Your task to perform on an android device: Go to location settings Image 0: 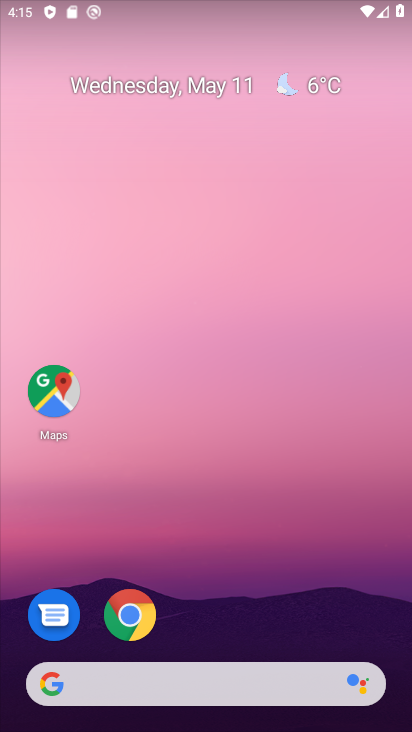
Step 0: drag from (297, 581) to (257, 156)
Your task to perform on an android device: Go to location settings Image 1: 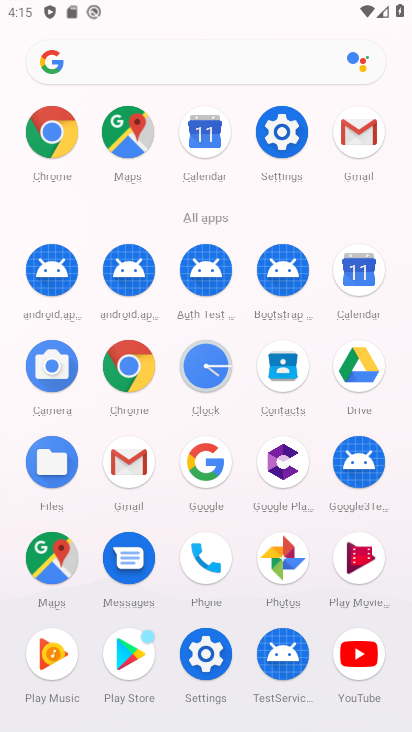
Step 1: click (203, 655)
Your task to perform on an android device: Go to location settings Image 2: 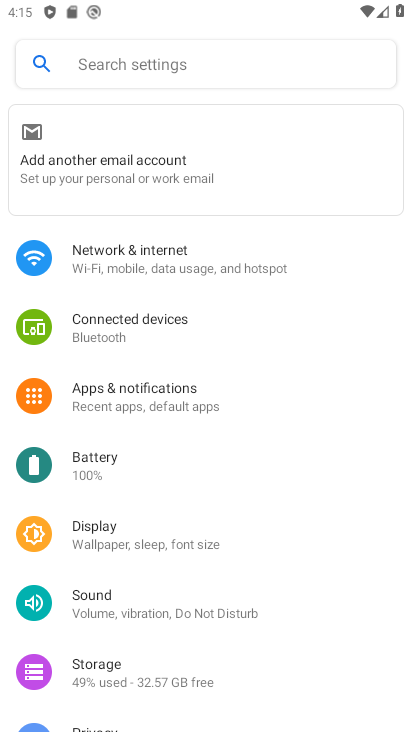
Step 2: drag from (211, 575) to (168, 318)
Your task to perform on an android device: Go to location settings Image 3: 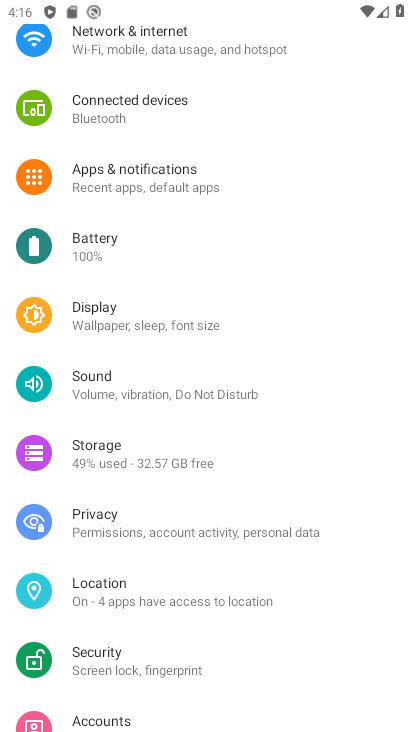
Step 3: click (175, 584)
Your task to perform on an android device: Go to location settings Image 4: 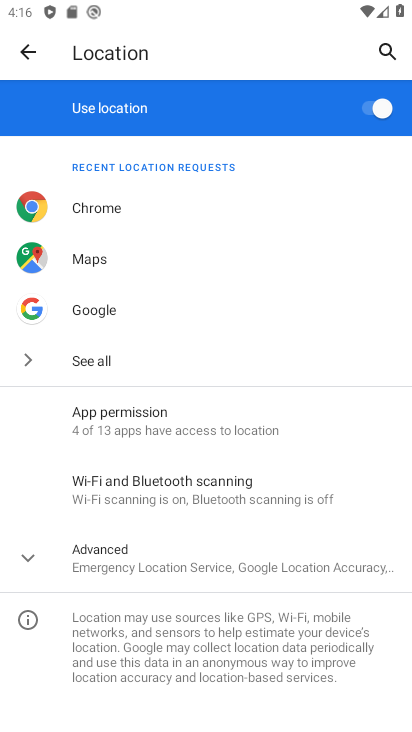
Step 4: task complete